Your task to perform on an android device: turn off location history Image 0: 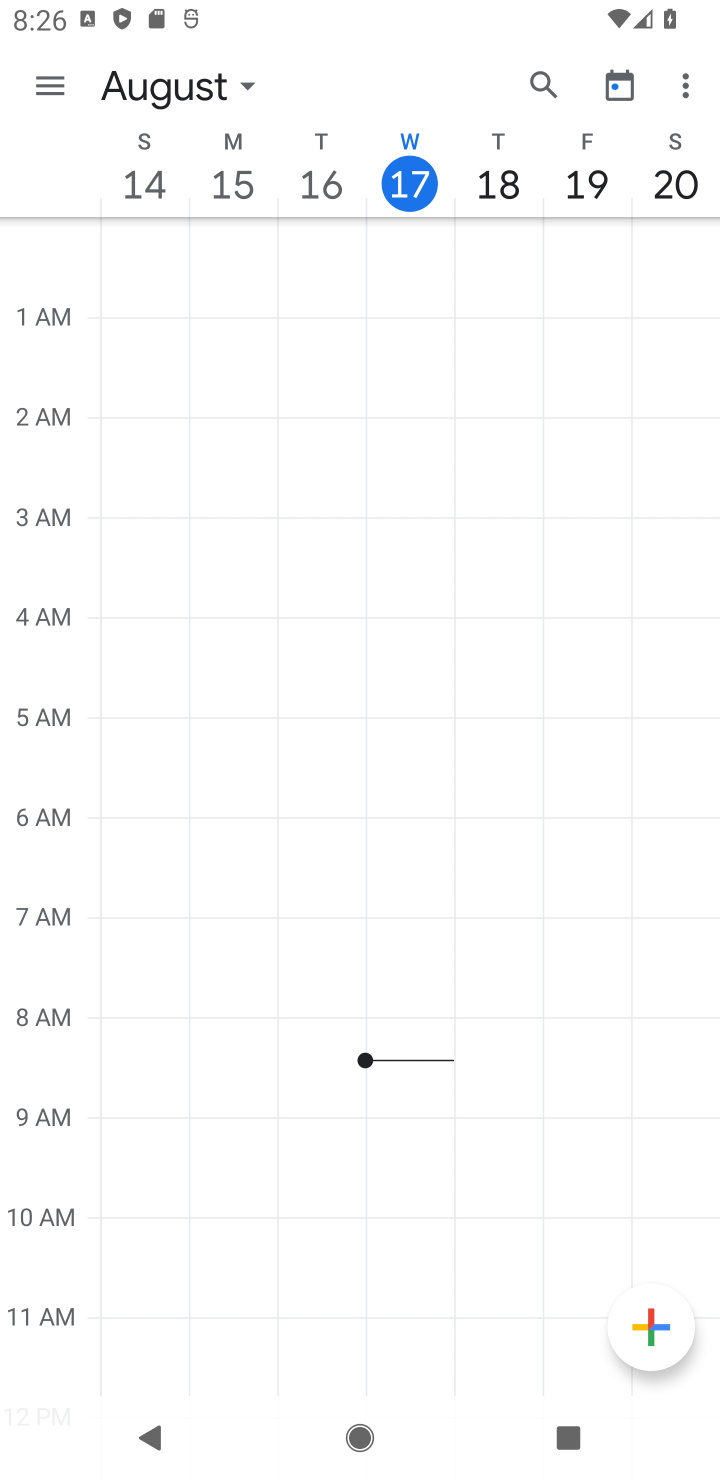
Step 0: press home button
Your task to perform on an android device: turn off location history Image 1: 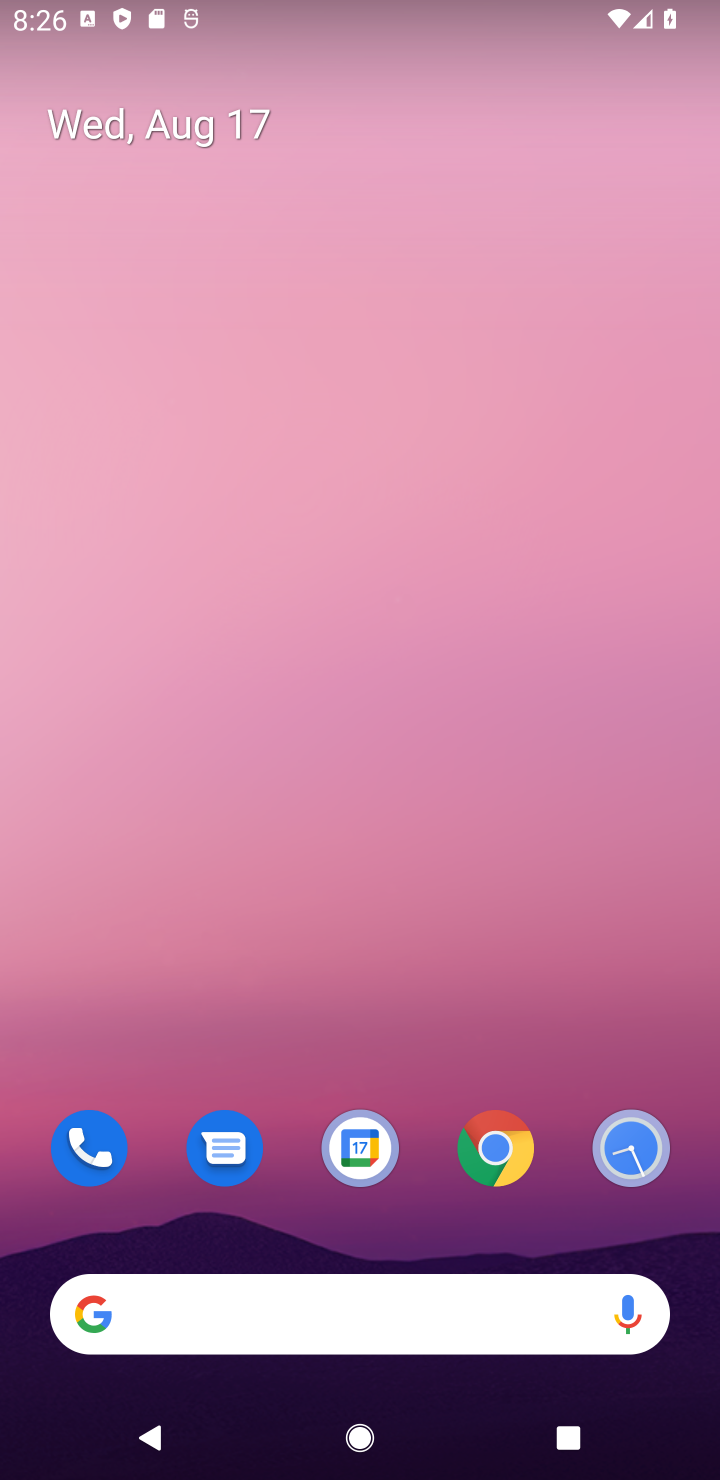
Step 1: drag from (562, 1239) to (563, 355)
Your task to perform on an android device: turn off location history Image 2: 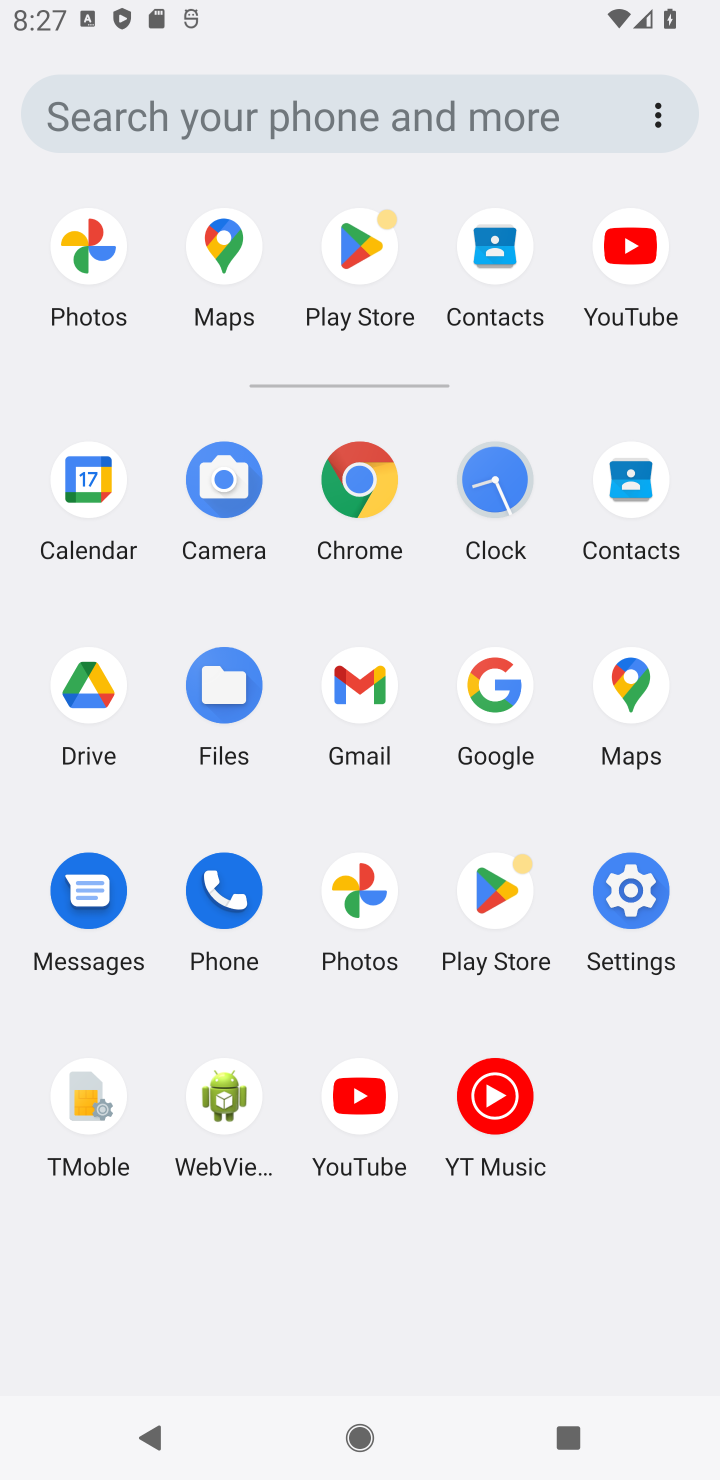
Step 2: click (637, 681)
Your task to perform on an android device: turn off location history Image 3: 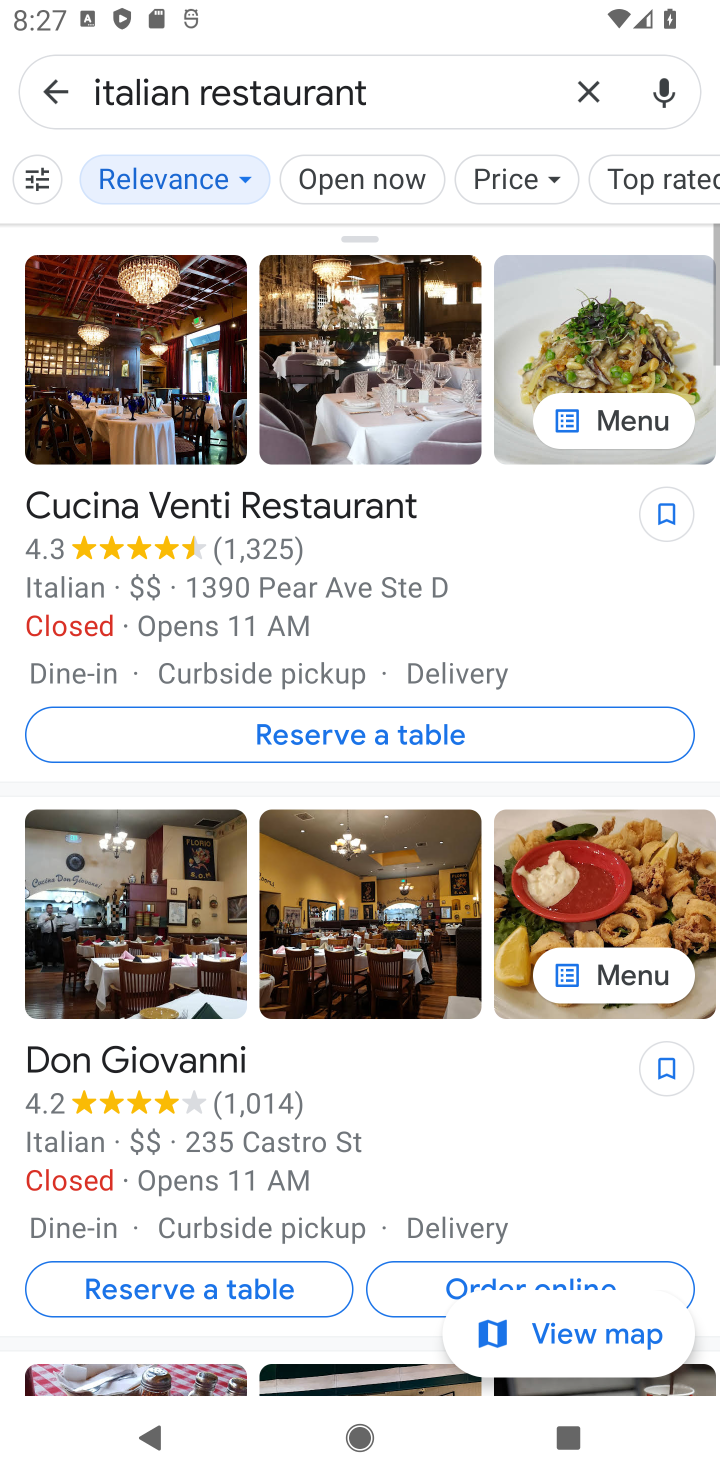
Step 3: click (588, 91)
Your task to perform on an android device: turn off location history Image 4: 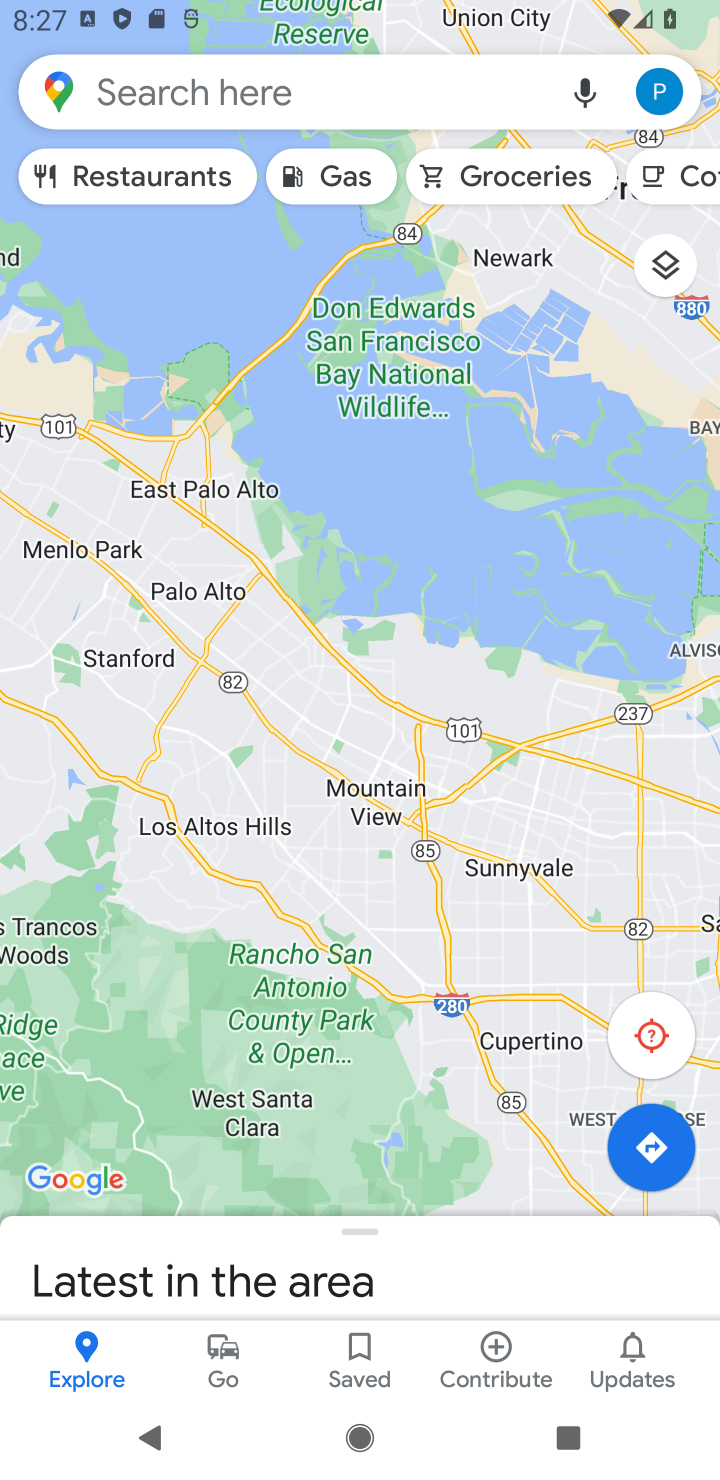
Step 4: click (657, 94)
Your task to perform on an android device: turn off location history Image 5: 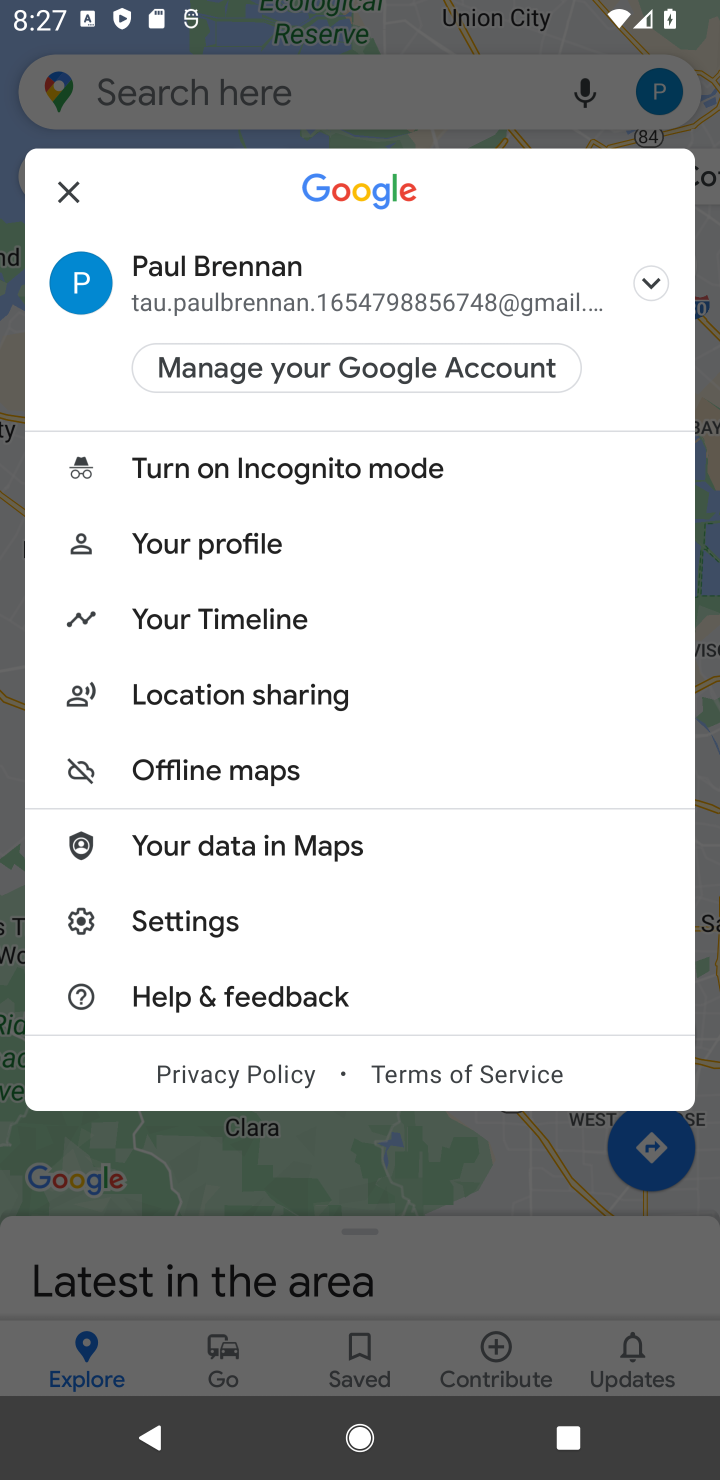
Step 5: click (194, 929)
Your task to perform on an android device: turn off location history Image 6: 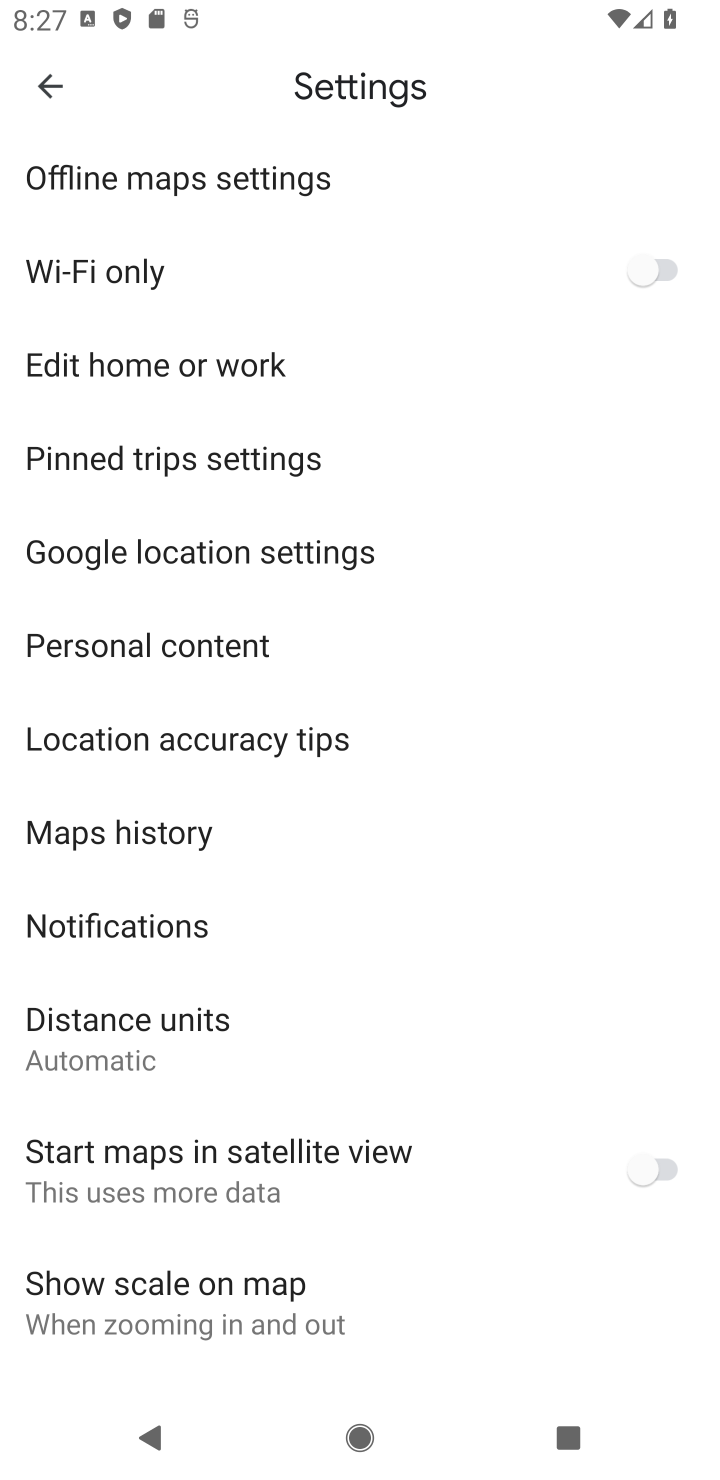
Step 6: click (137, 650)
Your task to perform on an android device: turn off location history Image 7: 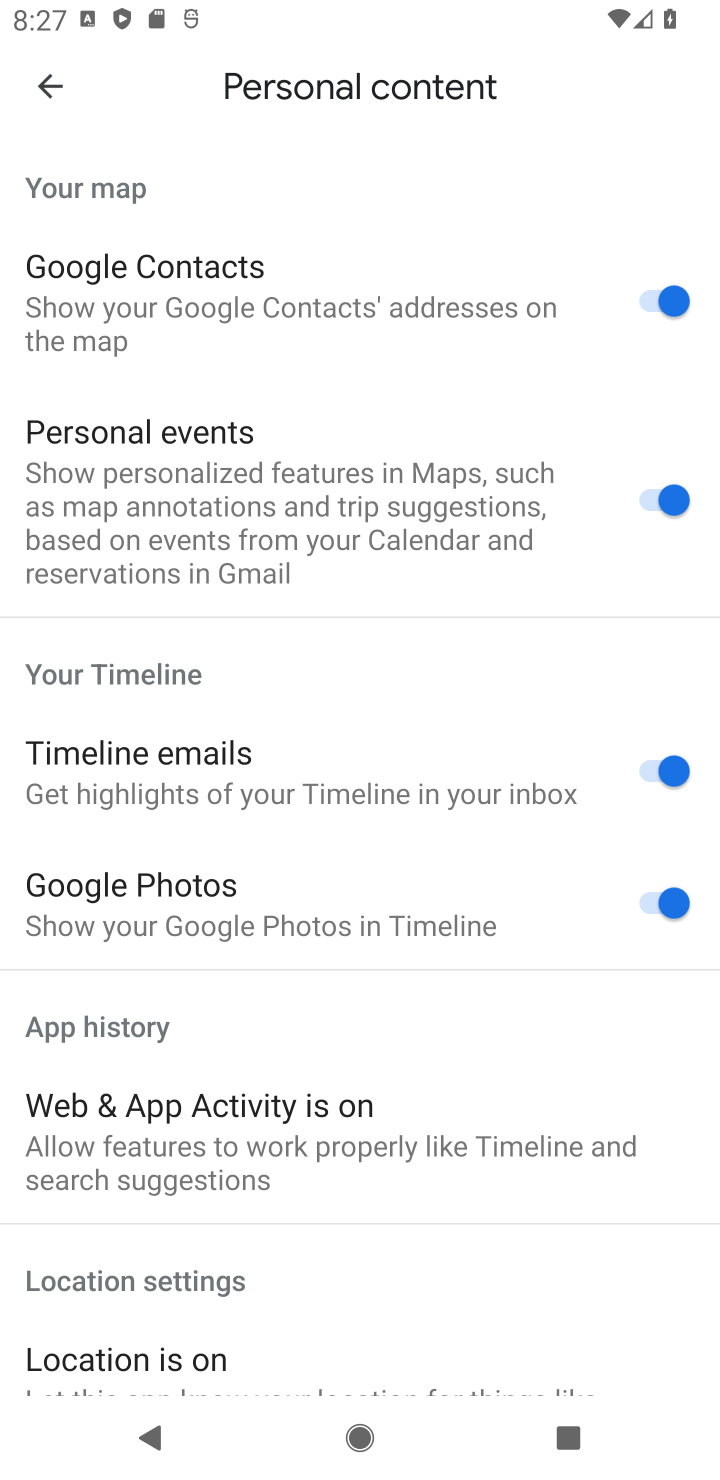
Step 7: task complete